Your task to perform on an android device: Go to wifi settings Image 0: 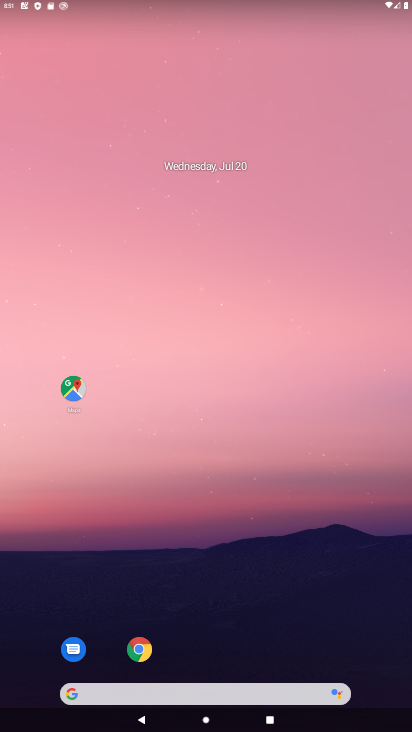
Step 0: drag from (261, 638) to (254, 51)
Your task to perform on an android device: Go to wifi settings Image 1: 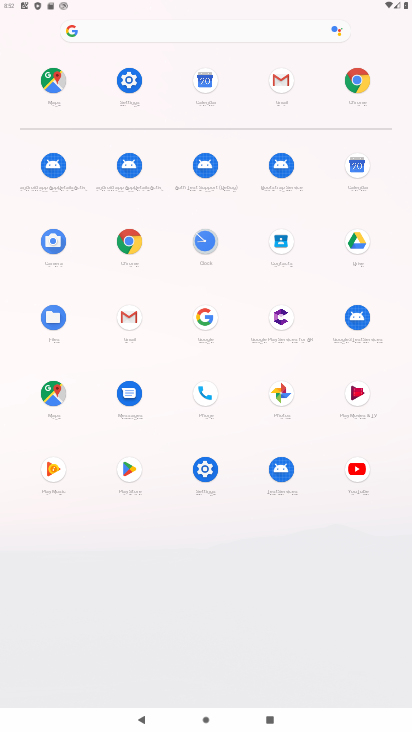
Step 1: click (108, 95)
Your task to perform on an android device: Go to wifi settings Image 2: 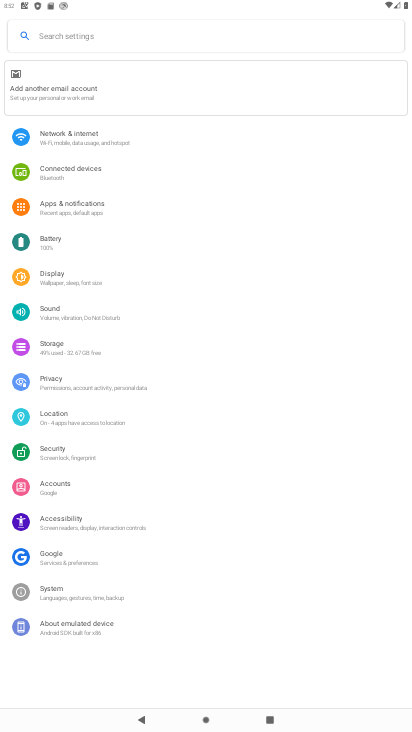
Step 2: task complete